Your task to perform on an android device: Open ESPN.com Image 0: 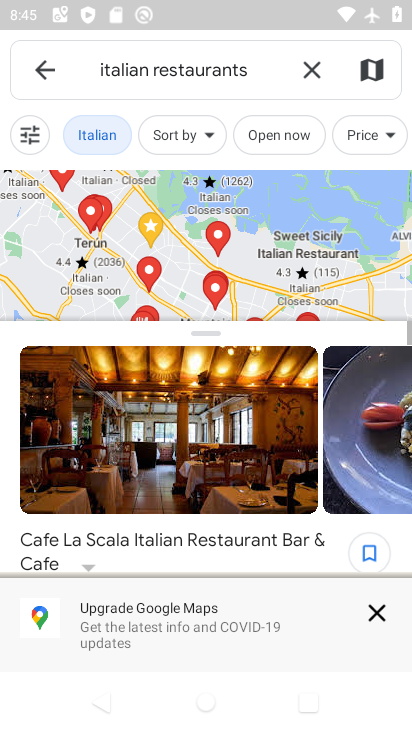
Step 0: press home button
Your task to perform on an android device: Open ESPN.com Image 1: 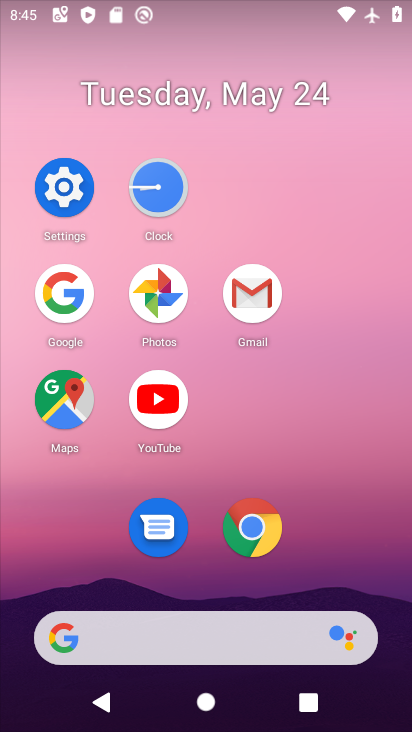
Step 1: click (261, 537)
Your task to perform on an android device: Open ESPN.com Image 2: 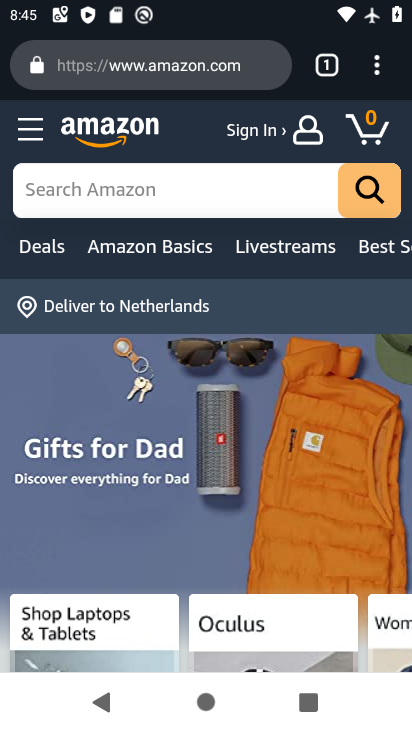
Step 2: click (316, 73)
Your task to perform on an android device: Open ESPN.com Image 3: 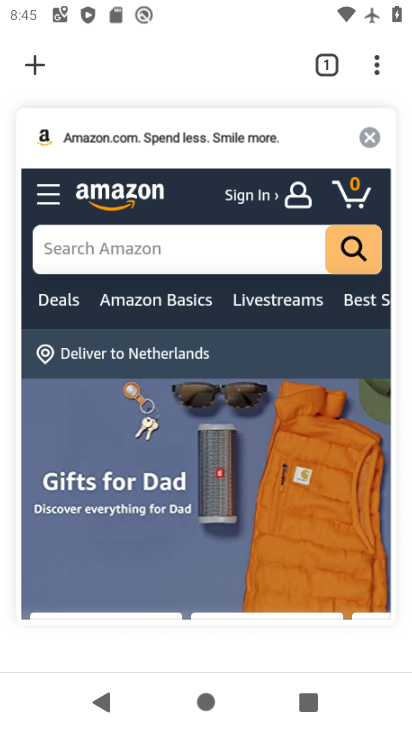
Step 3: click (39, 70)
Your task to perform on an android device: Open ESPN.com Image 4: 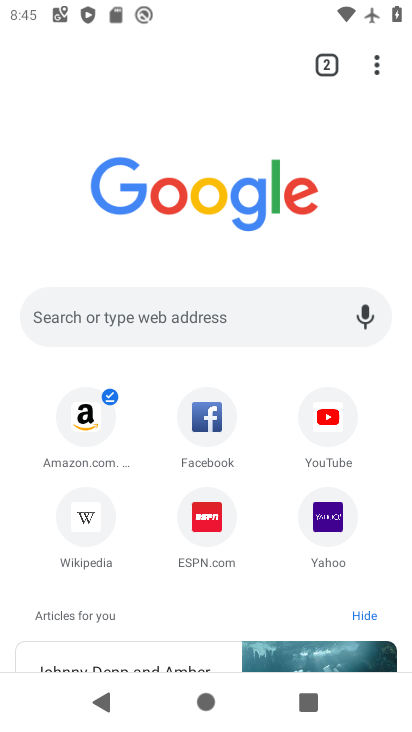
Step 4: click (215, 523)
Your task to perform on an android device: Open ESPN.com Image 5: 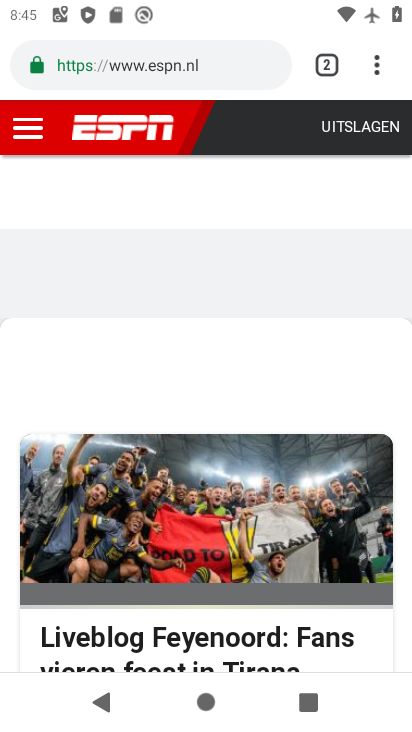
Step 5: task complete